Your task to perform on an android device: Open Wikipedia Image 0: 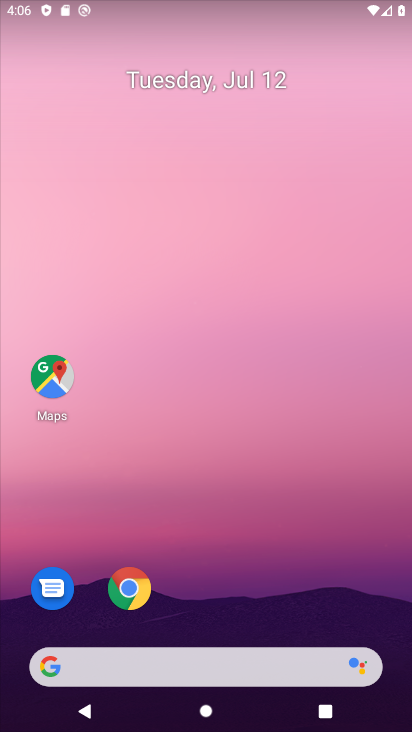
Step 0: click (145, 600)
Your task to perform on an android device: Open Wikipedia Image 1: 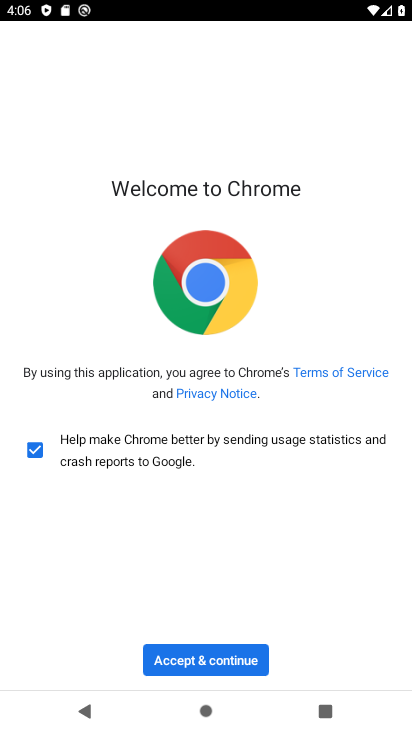
Step 1: click (249, 667)
Your task to perform on an android device: Open Wikipedia Image 2: 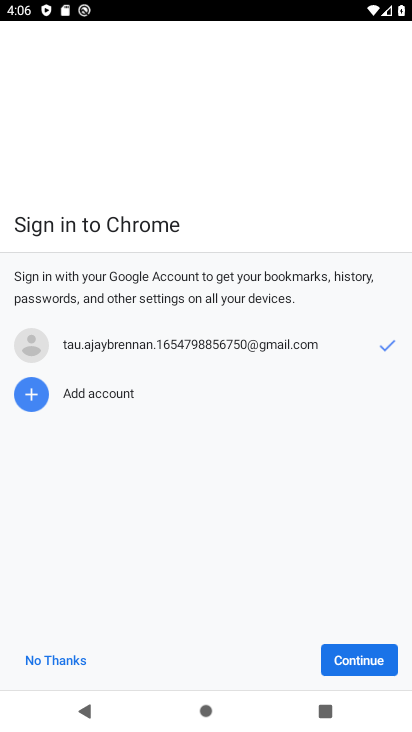
Step 2: click (333, 654)
Your task to perform on an android device: Open Wikipedia Image 3: 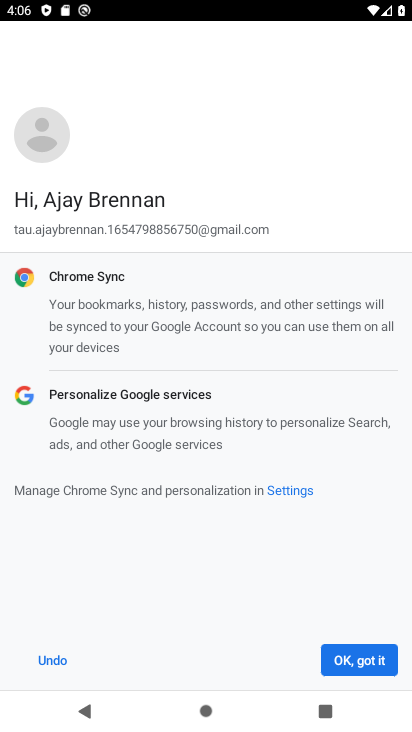
Step 3: click (368, 666)
Your task to perform on an android device: Open Wikipedia Image 4: 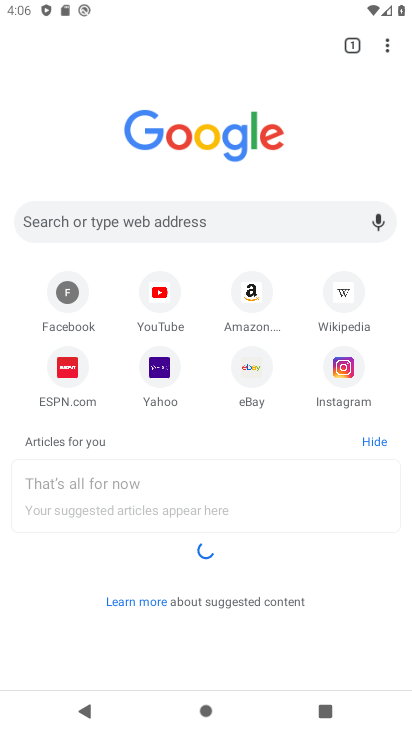
Step 4: click (342, 315)
Your task to perform on an android device: Open Wikipedia Image 5: 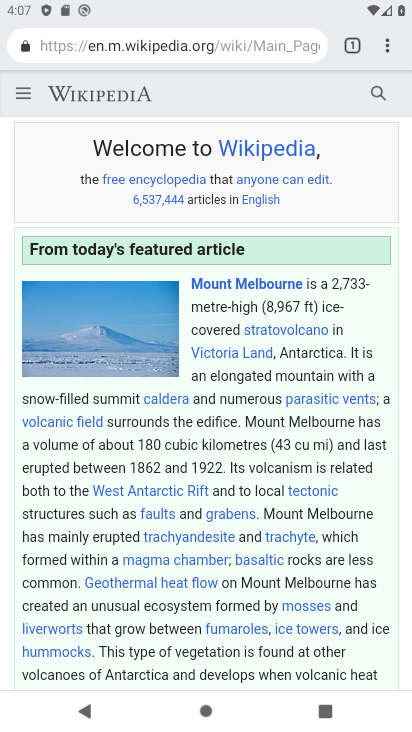
Step 5: task complete